Your task to perform on an android device: turn off priority inbox in the gmail app Image 0: 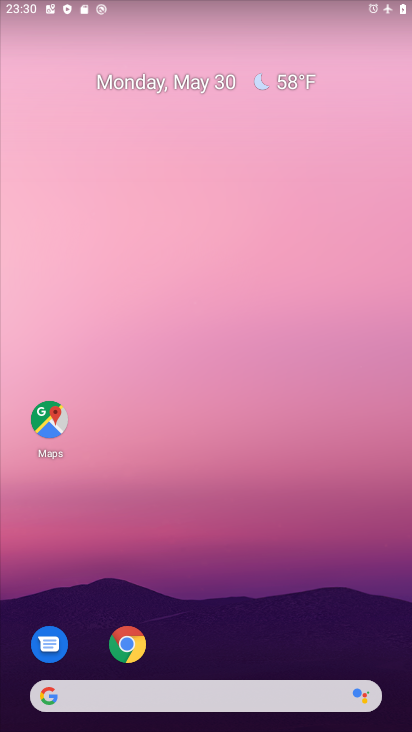
Step 0: drag from (377, 606) to (343, 124)
Your task to perform on an android device: turn off priority inbox in the gmail app Image 1: 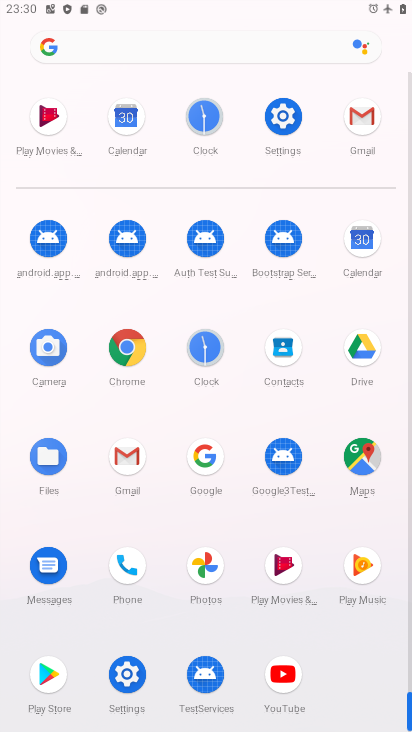
Step 1: click (123, 453)
Your task to perform on an android device: turn off priority inbox in the gmail app Image 2: 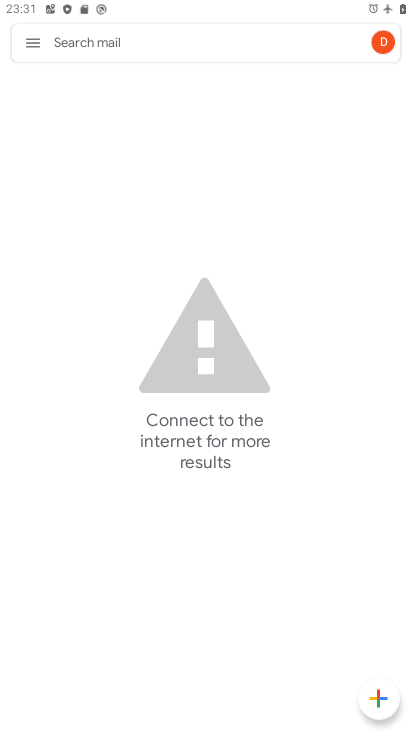
Step 2: click (33, 47)
Your task to perform on an android device: turn off priority inbox in the gmail app Image 3: 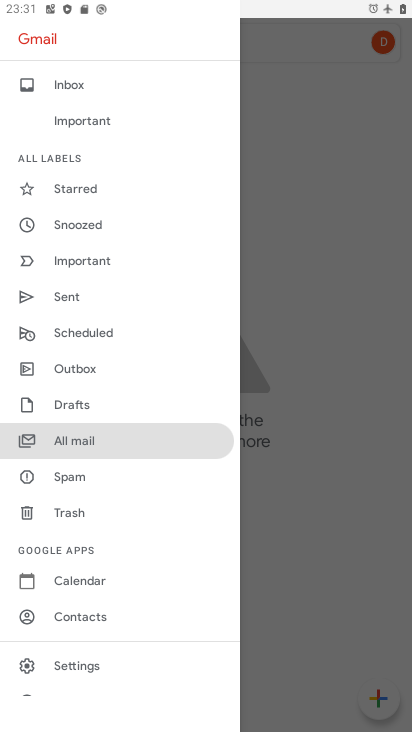
Step 3: click (76, 657)
Your task to perform on an android device: turn off priority inbox in the gmail app Image 4: 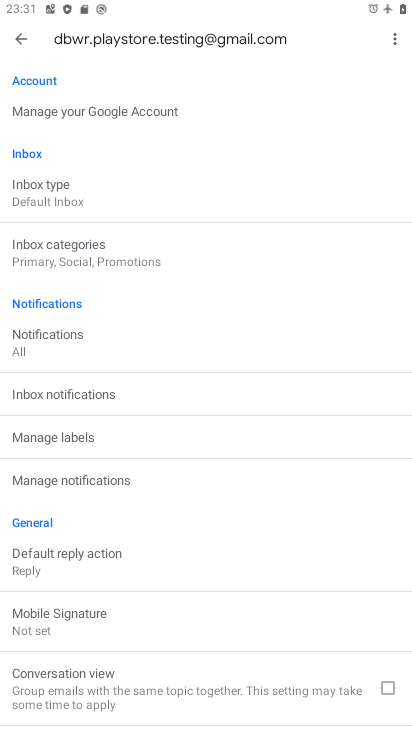
Step 4: click (45, 184)
Your task to perform on an android device: turn off priority inbox in the gmail app Image 5: 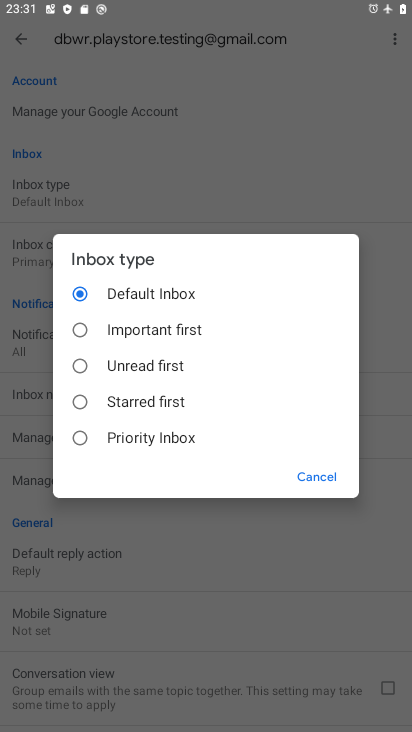
Step 5: task complete